Your task to perform on an android device: add a contact Image 0: 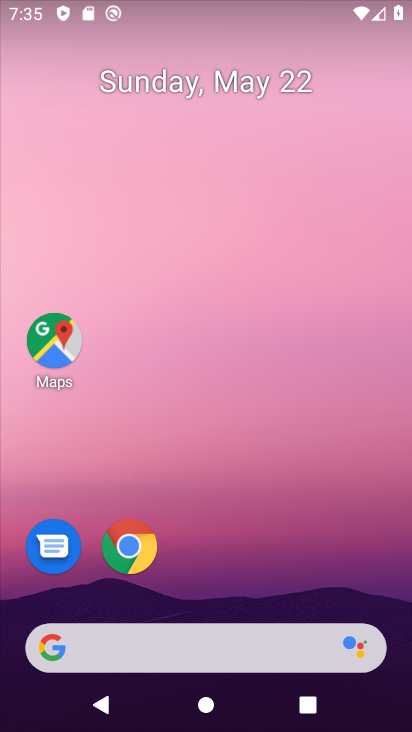
Step 0: drag from (289, 528) to (193, 7)
Your task to perform on an android device: add a contact Image 1: 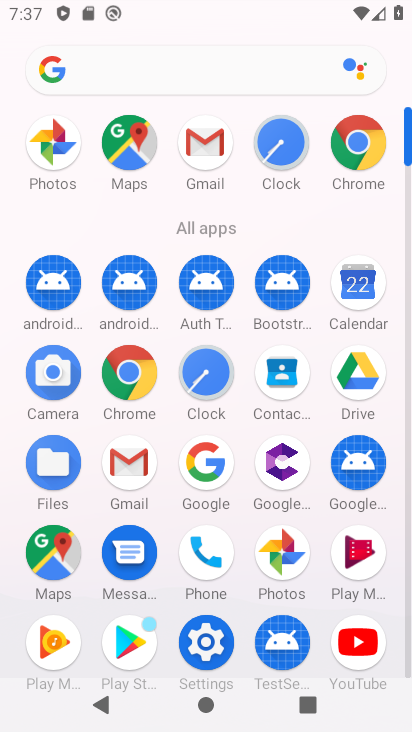
Step 1: click (204, 558)
Your task to perform on an android device: add a contact Image 2: 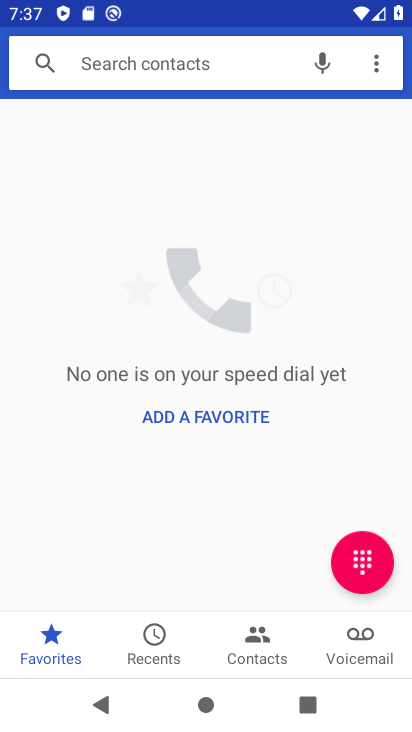
Step 2: click (253, 645)
Your task to perform on an android device: add a contact Image 3: 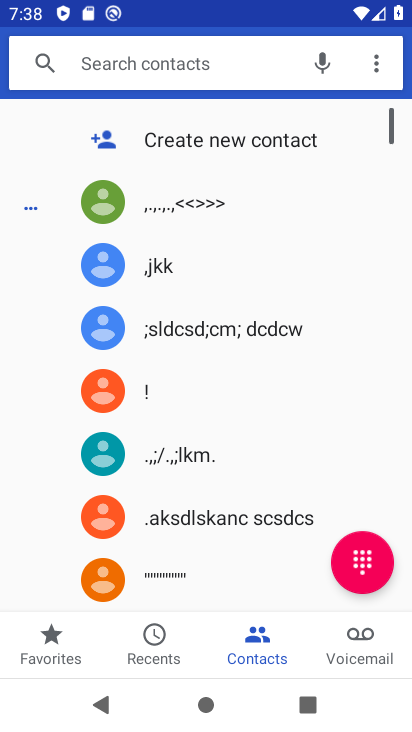
Step 3: click (267, 133)
Your task to perform on an android device: add a contact Image 4: 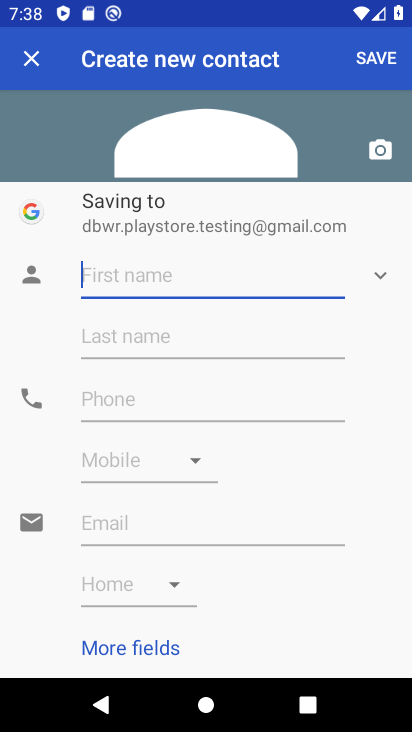
Step 4: type "ramesh"
Your task to perform on an android device: add a contact Image 5: 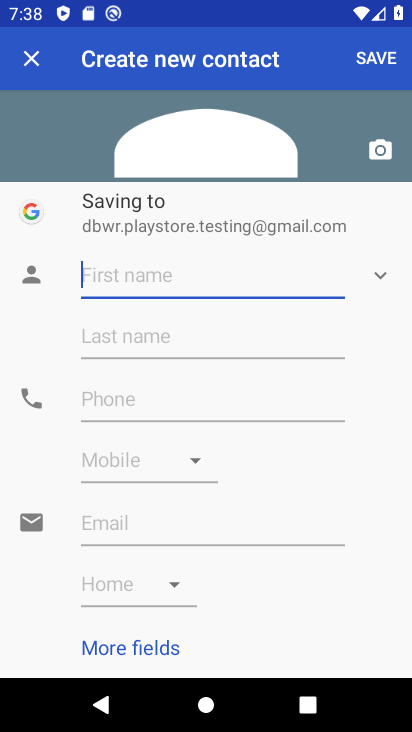
Step 5: click (162, 399)
Your task to perform on an android device: add a contact Image 6: 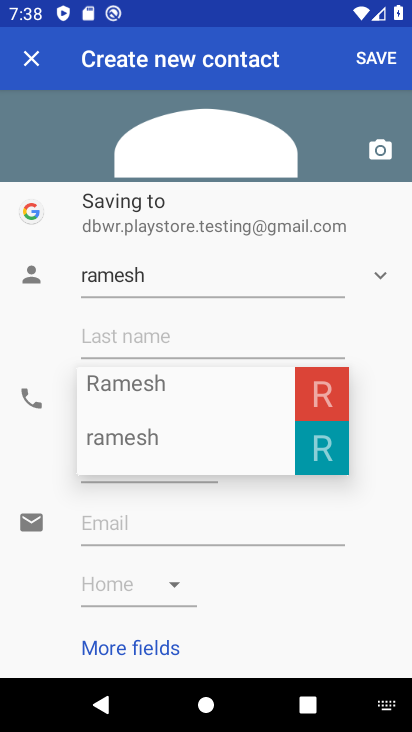
Step 6: type "64747474774"
Your task to perform on an android device: add a contact Image 7: 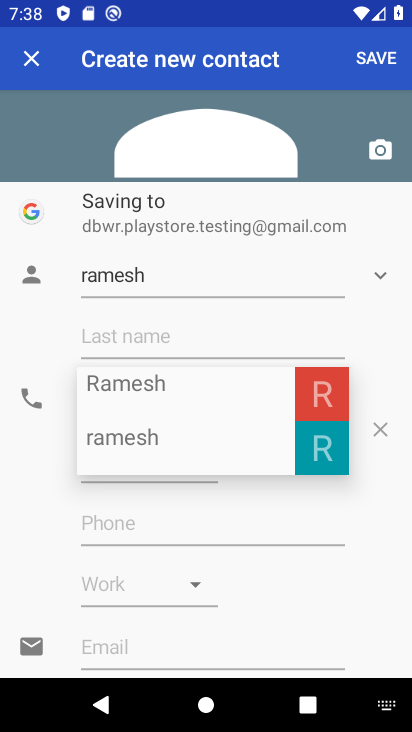
Step 7: click (381, 435)
Your task to perform on an android device: add a contact Image 8: 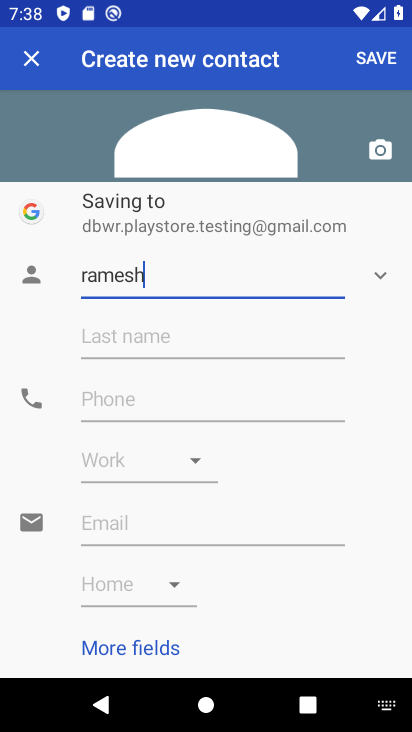
Step 8: click (180, 412)
Your task to perform on an android device: add a contact Image 9: 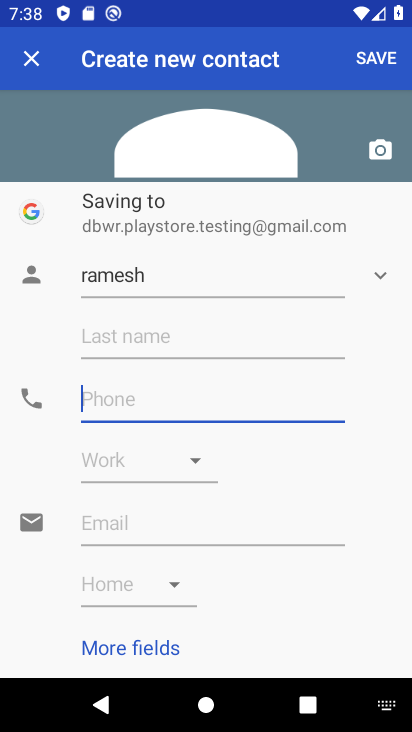
Step 9: click (199, 384)
Your task to perform on an android device: add a contact Image 10: 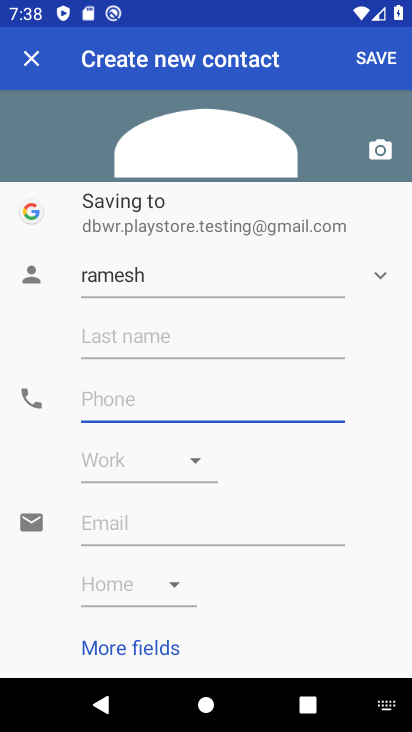
Step 10: type "747477"
Your task to perform on an android device: add a contact Image 11: 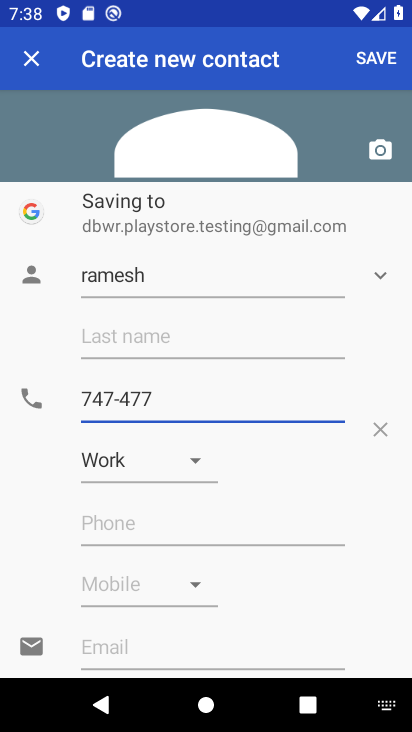
Step 11: click (374, 63)
Your task to perform on an android device: add a contact Image 12: 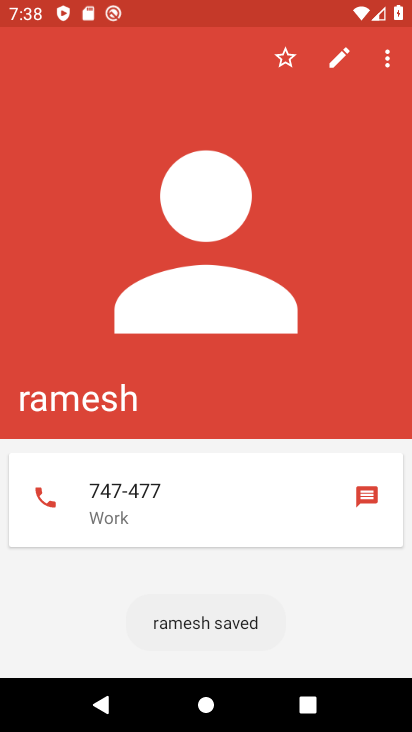
Step 12: task complete